Your task to perform on an android device: Open calendar and show me the first week of next month Image 0: 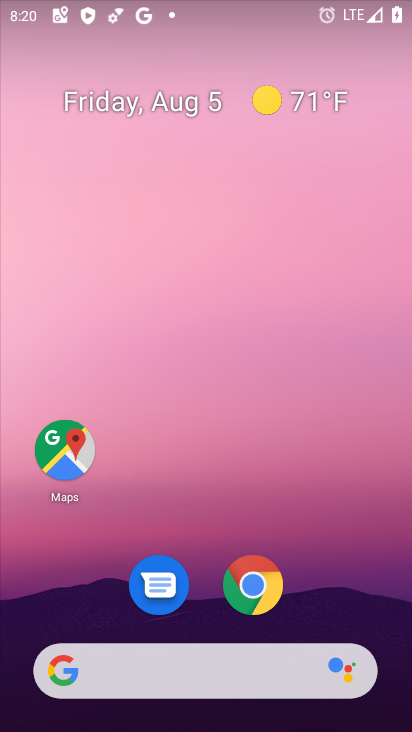
Step 0: drag from (236, 502) to (256, 36)
Your task to perform on an android device: Open calendar and show me the first week of next month Image 1: 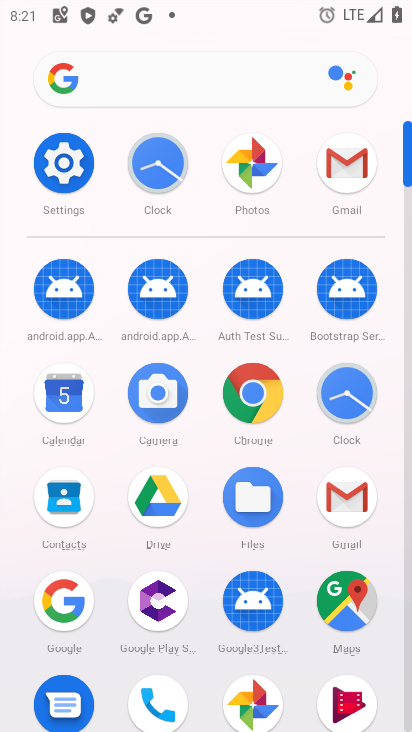
Step 1: click (64, 380)
Your task to perform on an android device: Open calendar and show me the first week of next month Image 2: 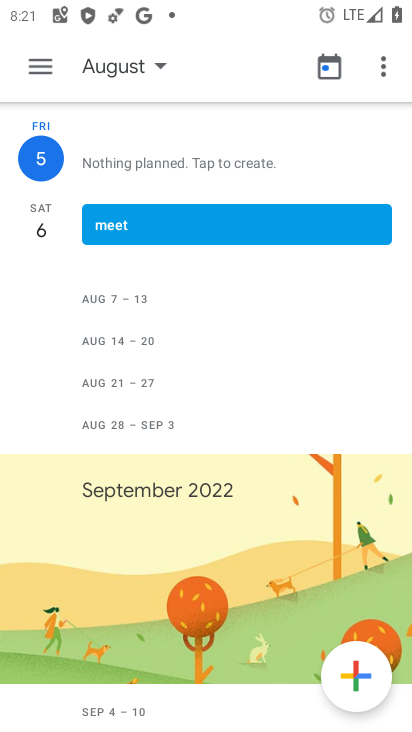
Step 2: click (40, 63)
Your task to perform on an android device: Open calendar and show me the first week of next month Image 3: 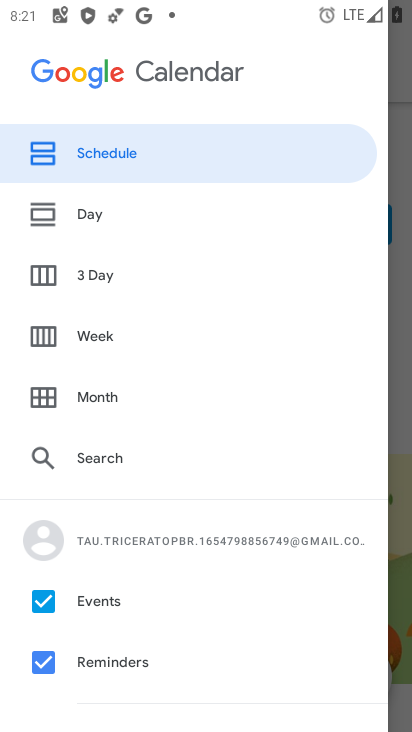
Step 3: click (44, 397)
Your task to perform on an android device: Open calendar and show me the first week of next month Image 4: 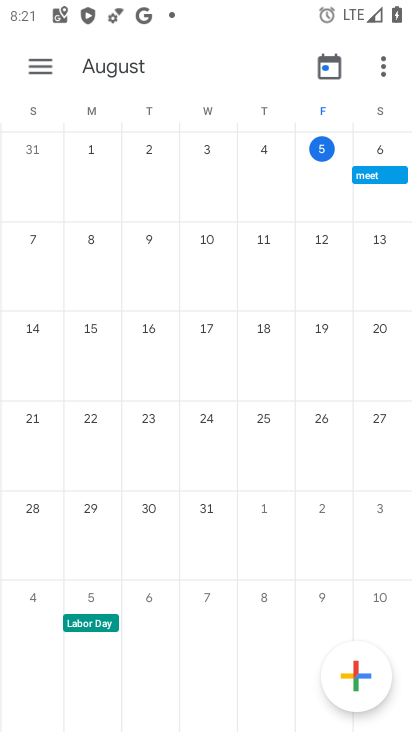
Step 4: drag from (369, 276) to (5, 296)
Your task to perform on an android device: Open calendar and show me the first week of next month Image 5: 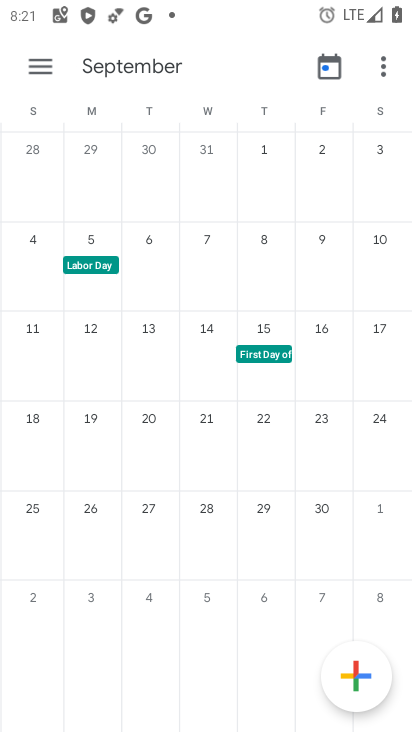
Step 5: click (40, 246)
Your task to perform on an android device: Open calendar and show me the first week of next month Image 6: 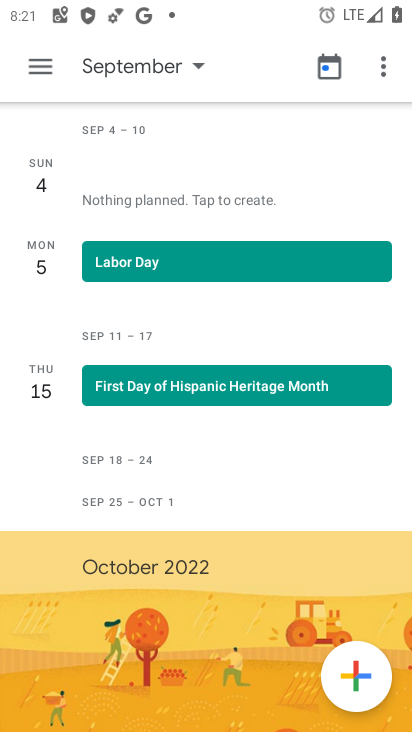
Step 6: click (49, 69)
Your task to perform on an android device: Open calendar and show me the first week of next month Image 7: 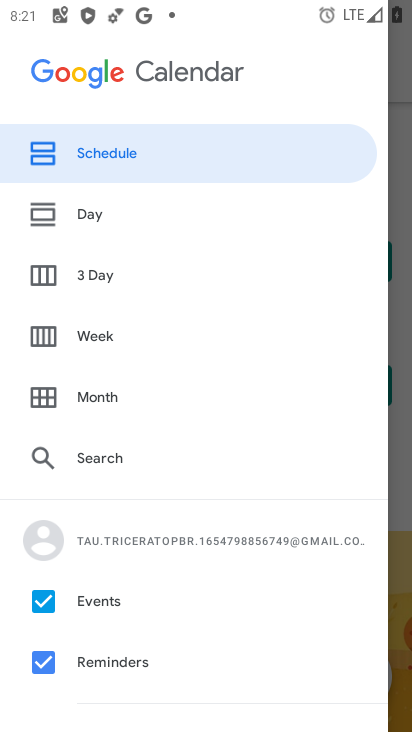
Step 7: click (41, 325)
Your task to perform on an android device: Open calendar and show me the first week of next month Image 8: 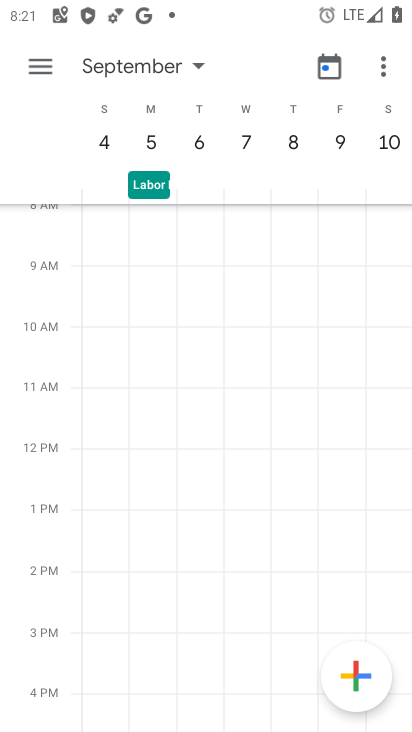
Step 8: task complete